Your task to perform on an android device: Open Amazon Image 0: 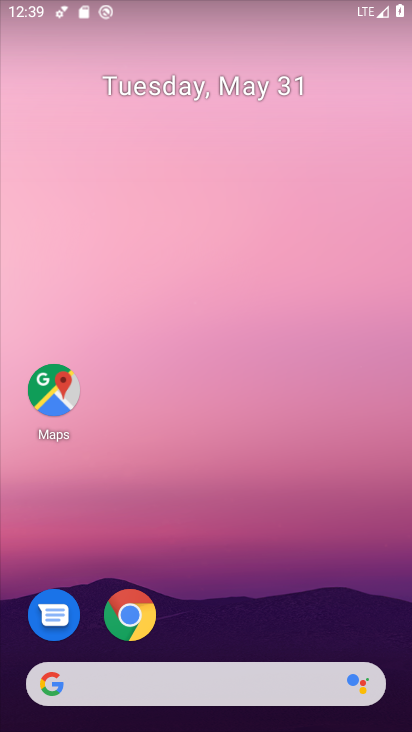
Step 0: click (128, 617)
Your task to perform on an android device: Open Amazon Image 1: 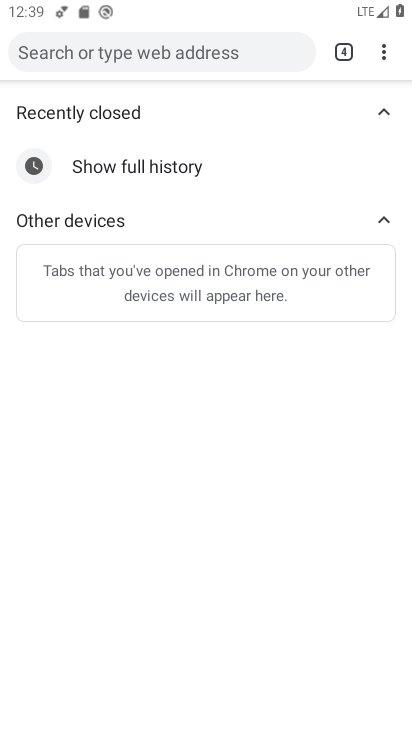
Step 1: click (192, 52)
Your task to perform on an android device: Open Amazon Image 2: 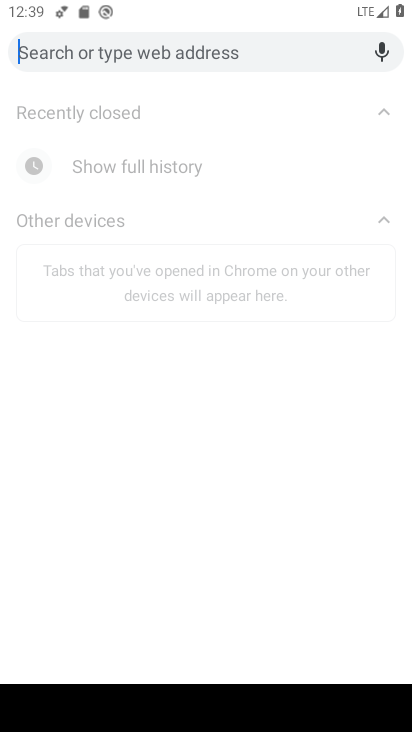
Step 2: type "Amazon"
Your task to perform on an android device: Open Amazon Image 3: 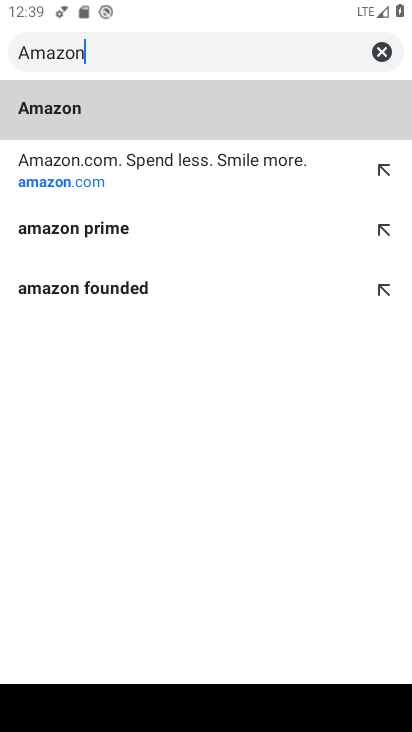
Step 3: click (171, 165)
Your task to perform on an android device: Open Amazon Image 4: 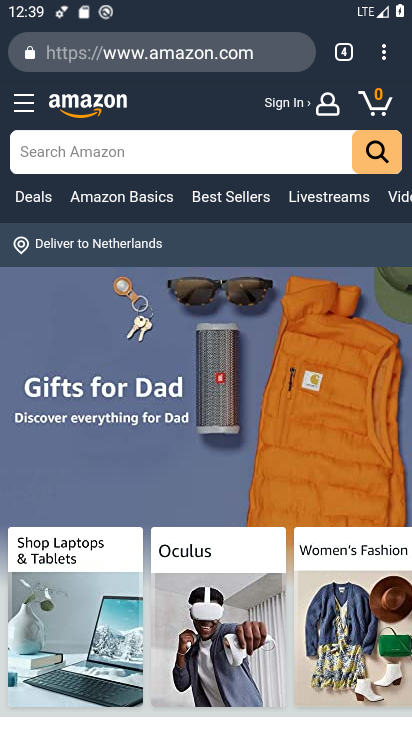
Step 4: task complete